Your task to perform on an android device: Open display settings Image 0: 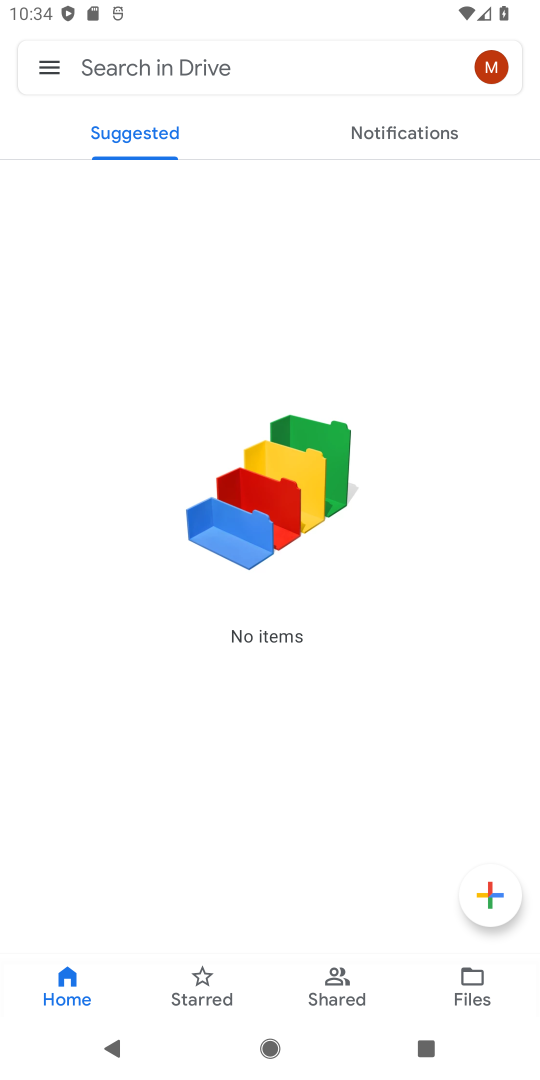
Step 0: press home button
Your task to perform on an android device: Open display settings Image 1: 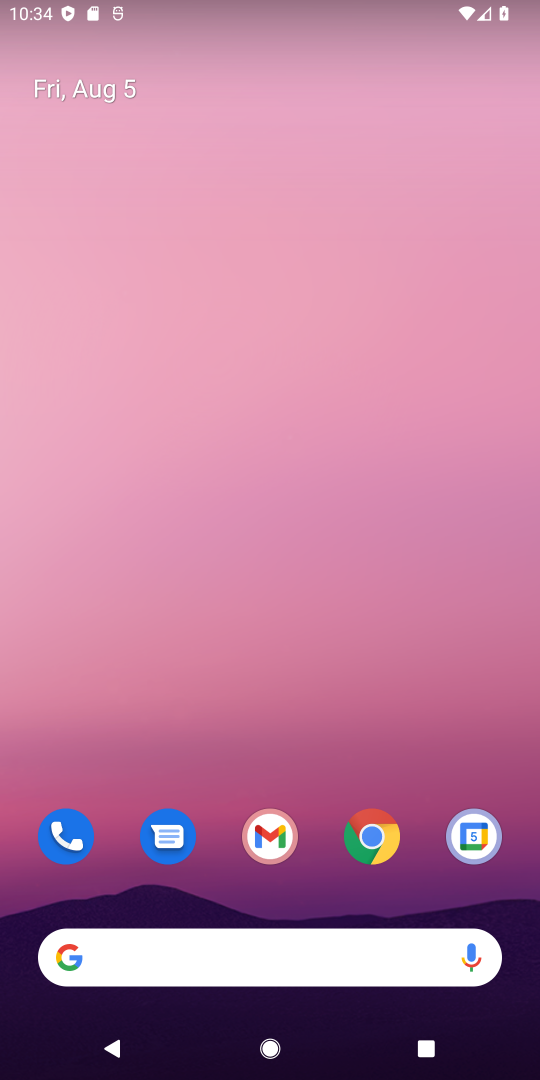
Step 1: drag from (335, 725) to (311, 148)
Your task to perform on an android device: Open display settings Image 2: 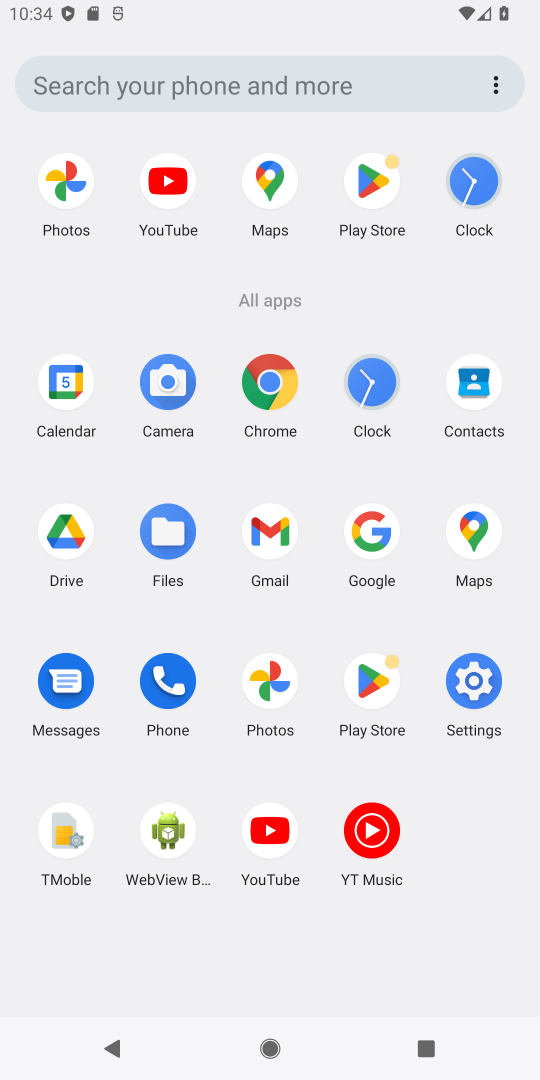
Step 2: click (465, 678)
Your task to perform on an android device: Open display settings Image 3: 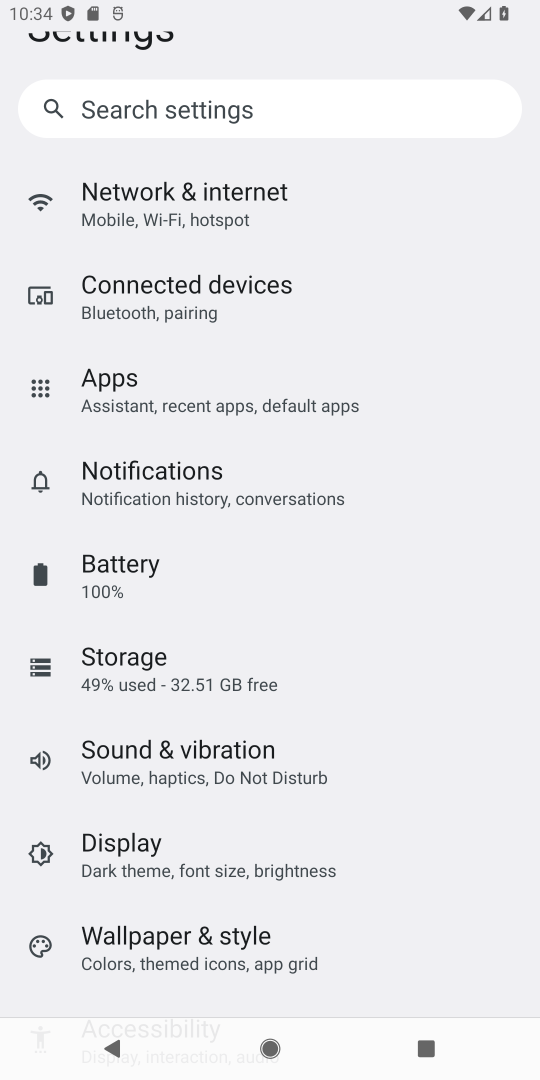
Step 3: click (175, 859)
Your task to perform on an android device: Open display settings Image 4: 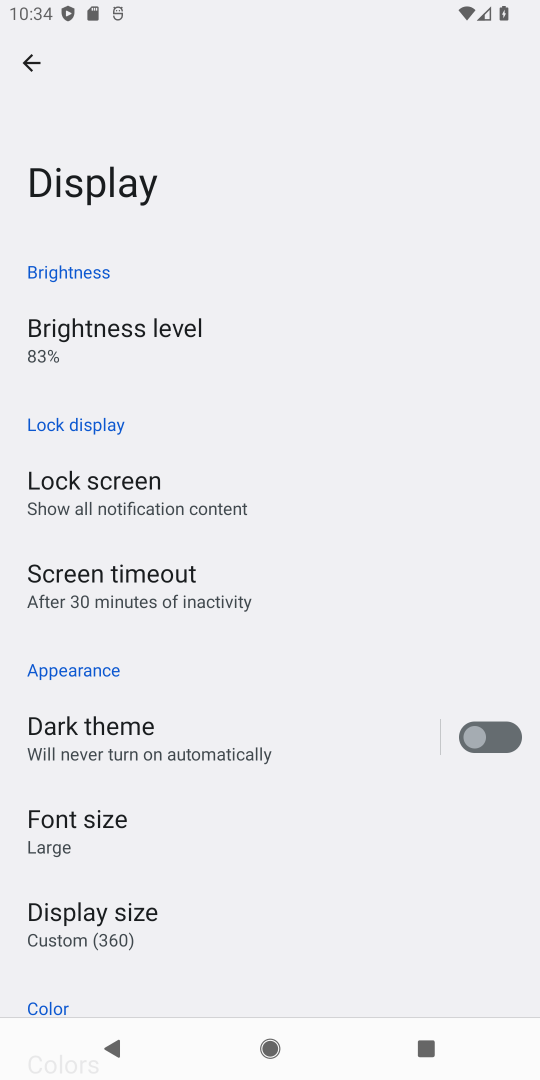
Step 4: task complete